Your task to perform on an android device: Go to privacy settings Image 0: 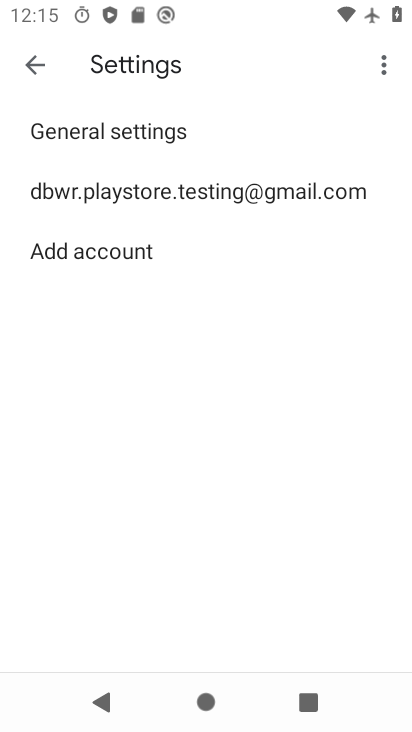
Step 0: press home button
Your task to perform on an android device: Go to privacy settings Image 1: 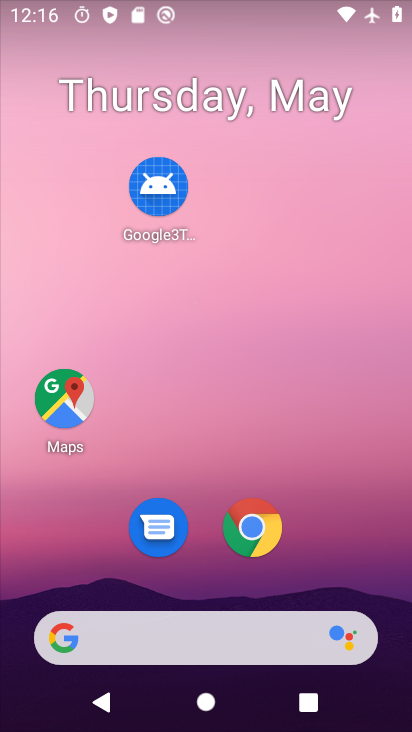
Step 1: drag from (205, 577) to (226, 157)
Your task to perform on an android device: Go to privacy settings Image 2: 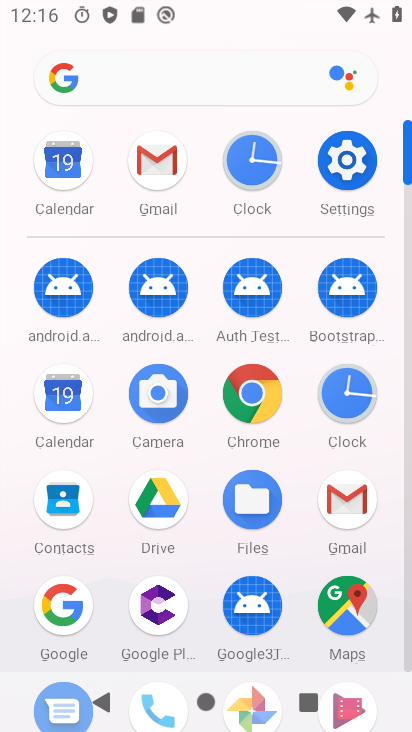
Step 2: click (344, 152)
Your task to perform on an android device: Go to privacy settings Image 3: 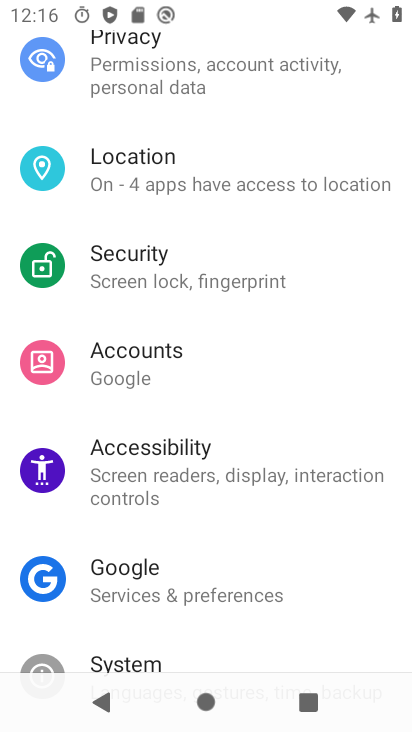
Step 3: click (172, 72)
Your task to perform on an android device: Go to privacy settings Image 4: 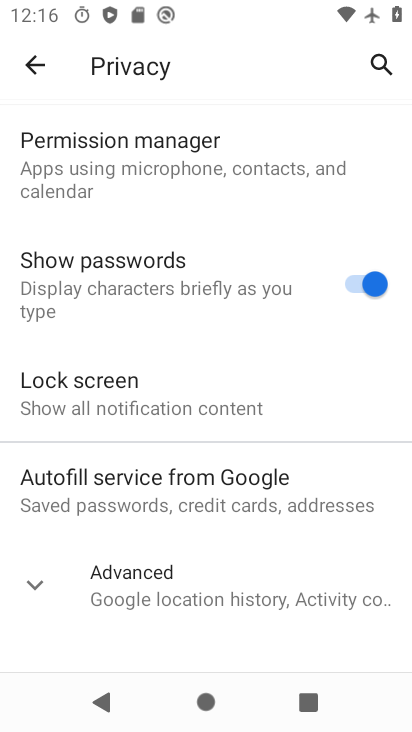
Step 4: click (28, 585)
Your task to perform on an android device: Go to privacy settings Image 5: 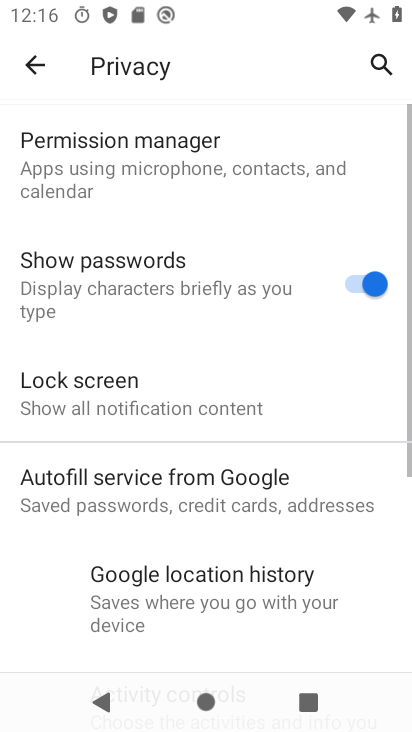
Step 5: task complete